Your task to perform on an android device: change keyboard looks Image 0: 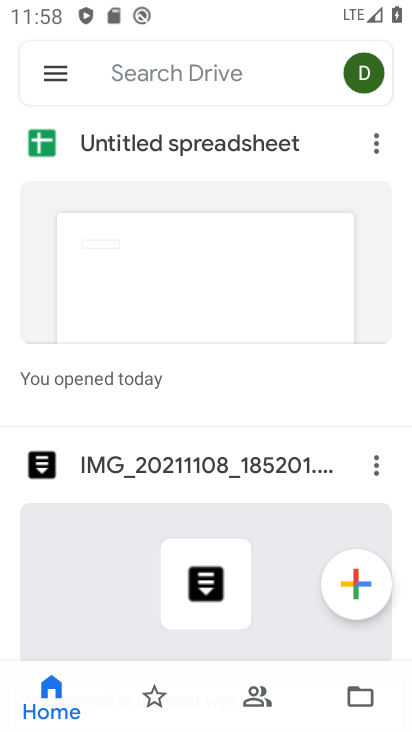
Step 0: press home button
Your task to perform on an android device: change keyboard looks Image 1: 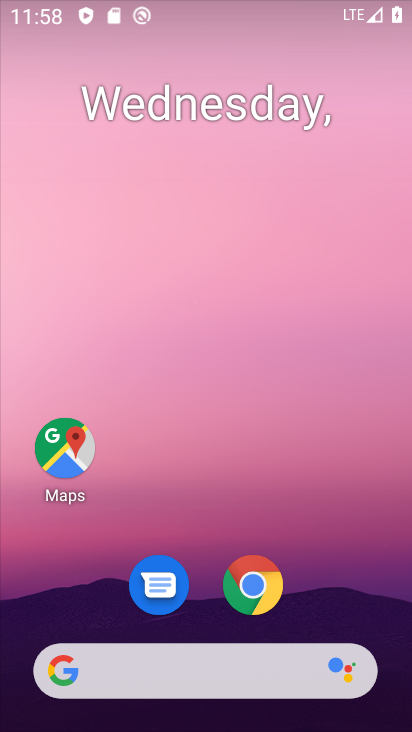
Step 1: drag from (272, 441) to (299, 20)
Your task to perform on an android device: change keyboard looks Image 2: 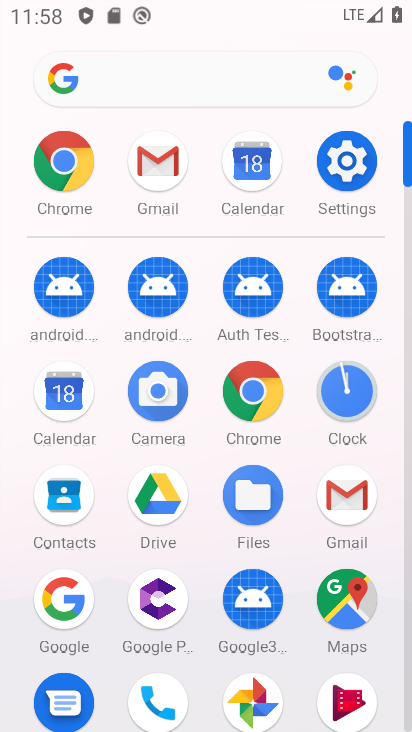
Step 2: click (346, 160)
Your task to perform on an android device: change keyboard looks Image 3: 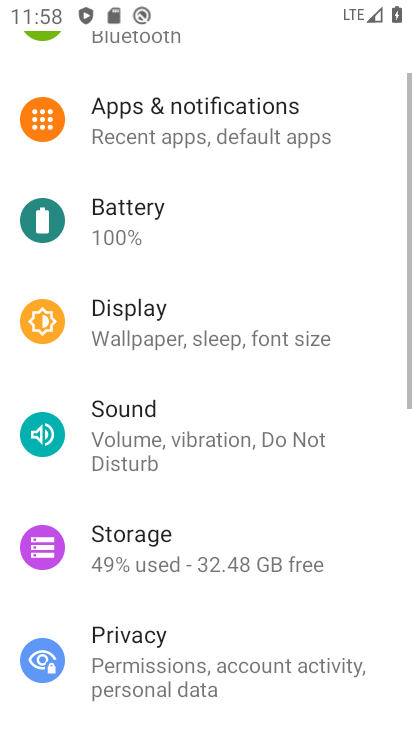
Step 3: drag from (253, 497) to (269, 154)
Your task to perform on an android device: change keyboard looks Image 4: 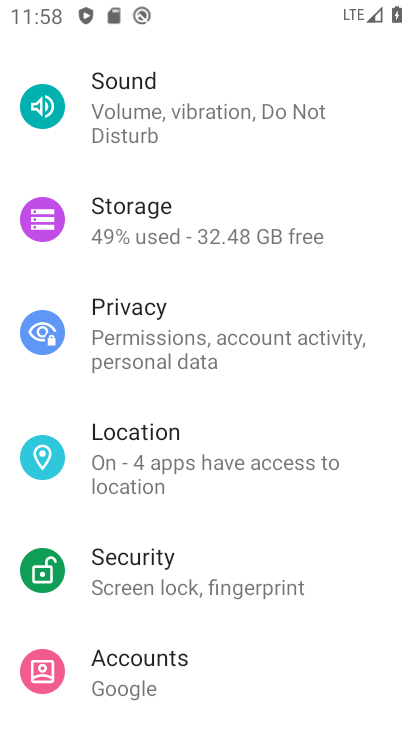
Step 4: drag from (272, 526) to (276, 145)
Your task to perform on an android device: change keyboard looks Image 5: 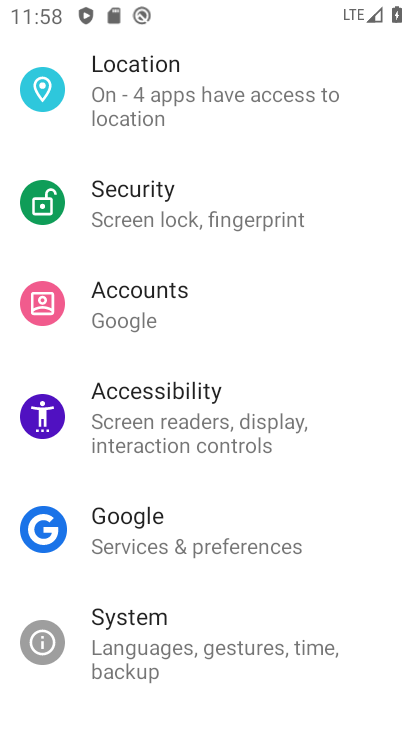
Step 5: click (163, 646)
Your task to perform on an android device: change keyboard looks Image 6: 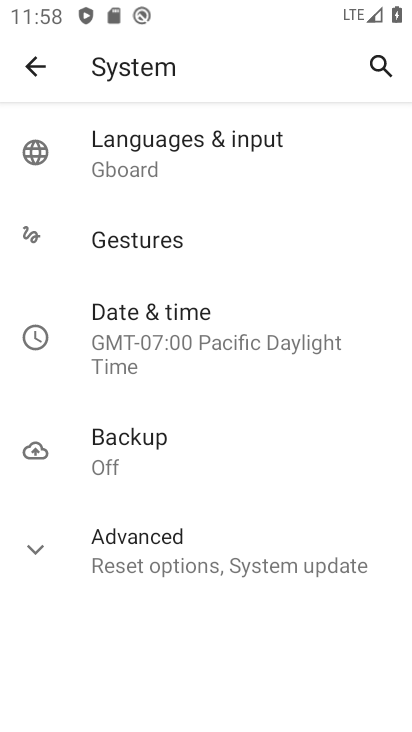
Step 6: click (201, 163)
Your task to perform on an android device: change keyboard looks Image 7: 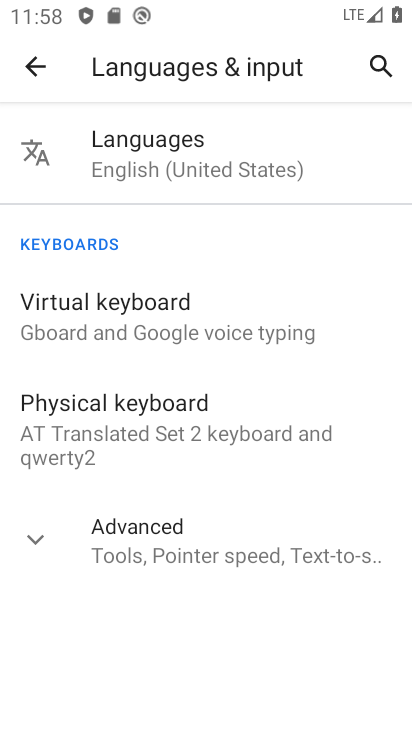
Step 7: click (159, 313)
Your task to perform on an android device: change keyboard looks Image 8: 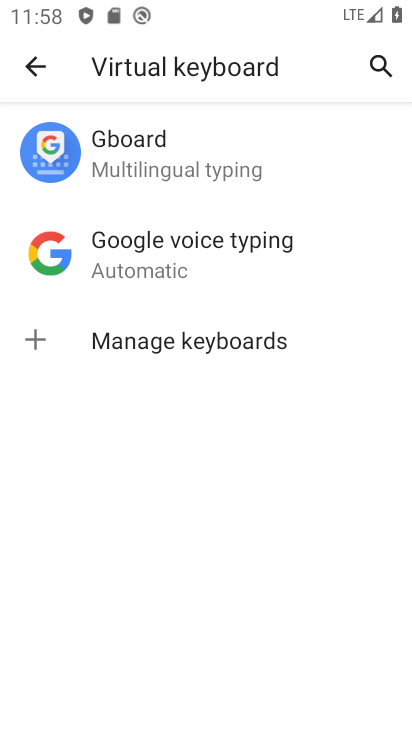
Step 8: click (178, 160)
Your task to perform on an android device: change keyboard looks Image 9: 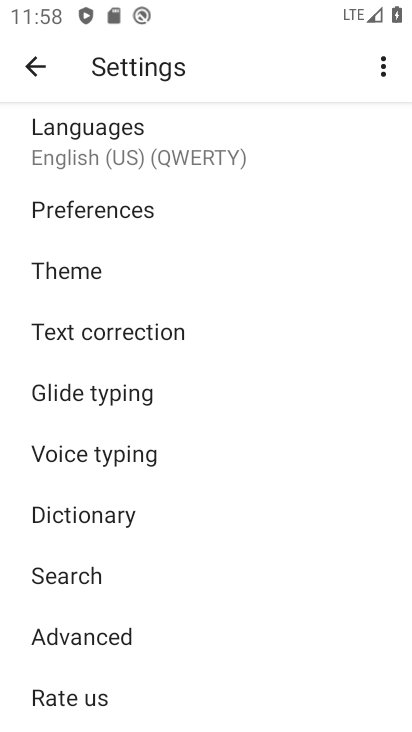
Step 9: click (116, 280)
Your task to perform on an android device: change keyboard looks Image 10: 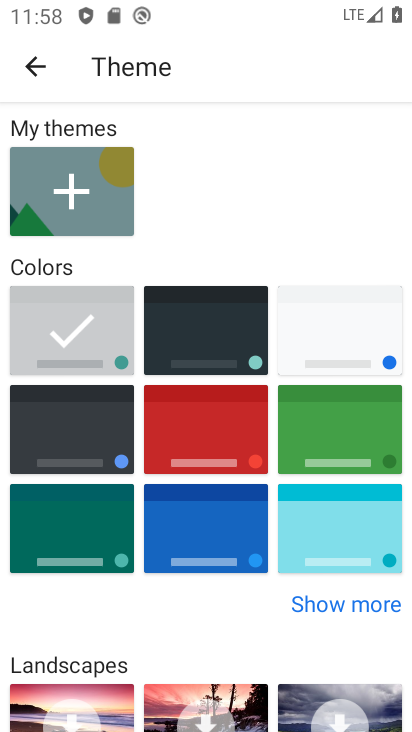
Step 10: click (218, 350)
Your task to perform on an android device: change keyboard looks Image 11: 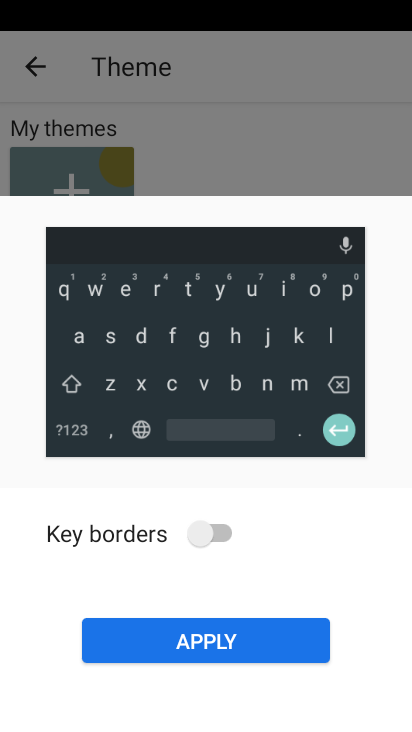
Step 11: click (212, 525)
Your task to perform on an android device: change keyboard looks Image 12: 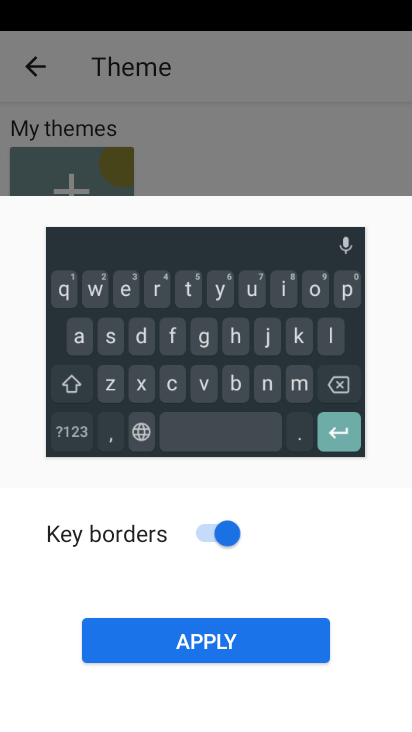
Step 12: click (211, 635)
Your task to perform on an android device: change keyboard looks Image 13: 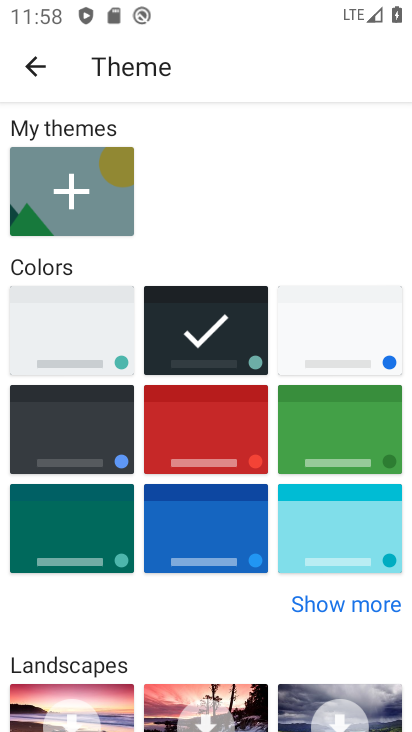
Step 13: task complete